Your task to perform on an android device: Search for desk lamps on article.com Image 0: 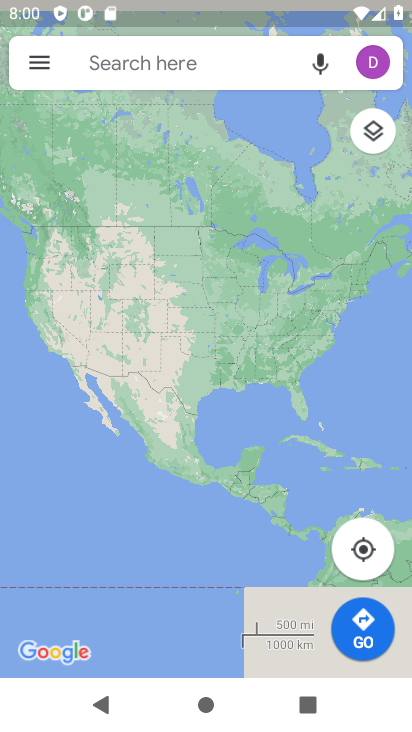
Step 0: press home button
Your task to perform on an android device: Search for desk lamps on article.com Image 1: 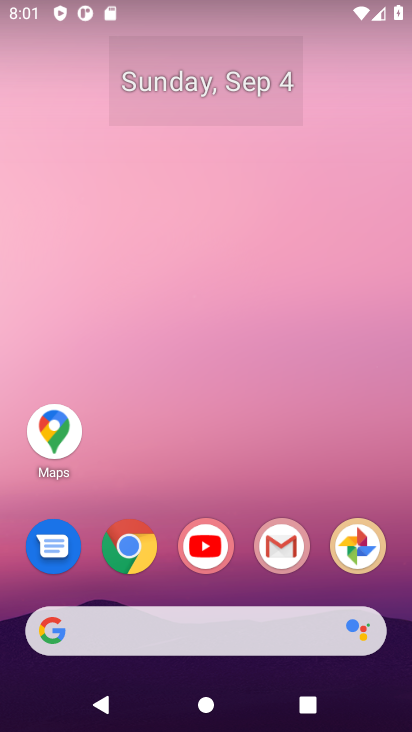
Step 1: click (126, 551)
Your task to perform on an android device: Search for desk lamps on article.com Image 2: 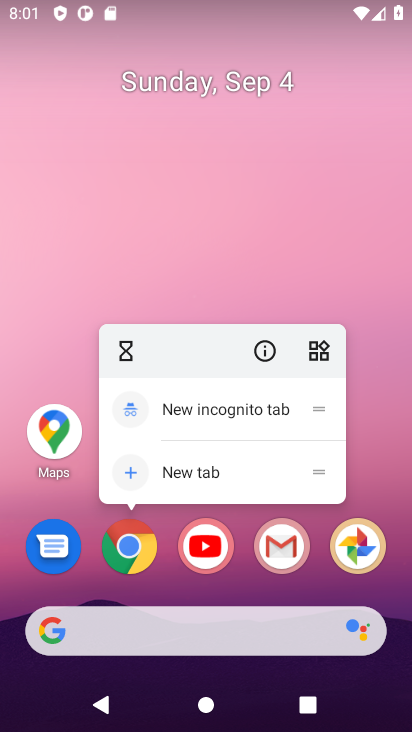
Step 2: click (126, 551)
Your task to perform on an android device: Search for desk lamps on article.com Image 3: 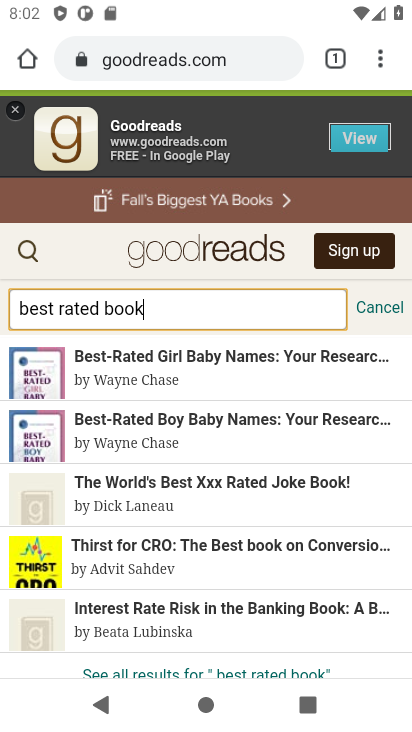
Step 3: click (27, 255)
Your task to perform on an android device: Search for desk lamps on article.com Image 4: 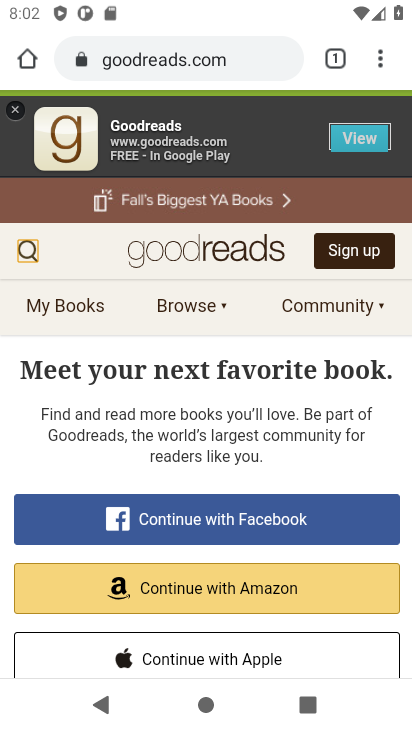
Step 4: click (33, 255)
Your task to perform on an android device: Search for desk lamps on article.com Image 5: 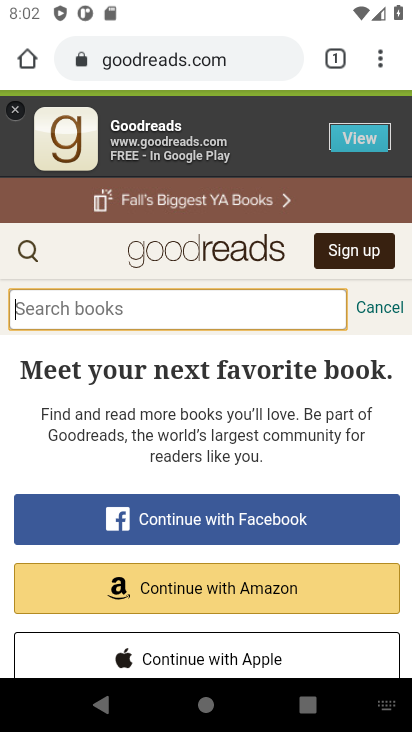
Step 5: click (79, 302)
Your task to perform on an android device: Search for desk lamps on article.com Image 6: 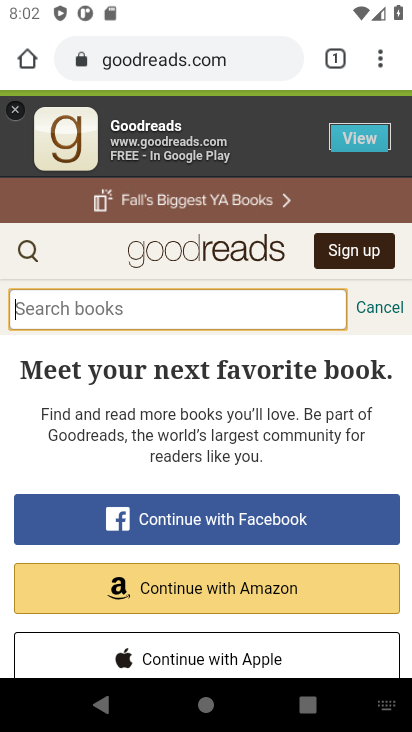
Step 6: click (160, 46)
Your task to perform on an android device: Search for desk lamps on article.com Image 7: 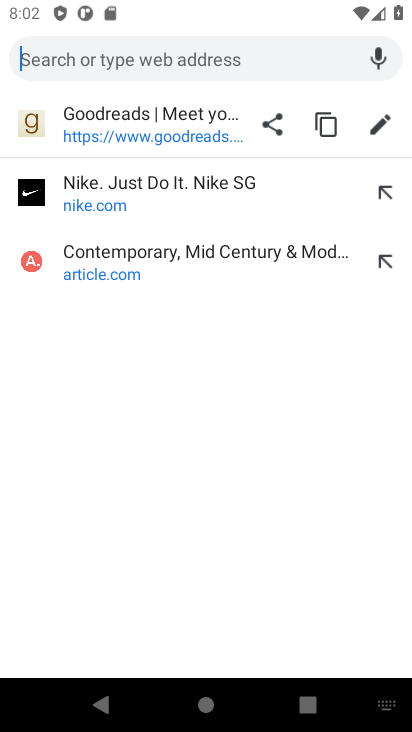
Step 7: type "article.com"
Your task to perform on an android device: Search for desk lamps on article.com Image 8: 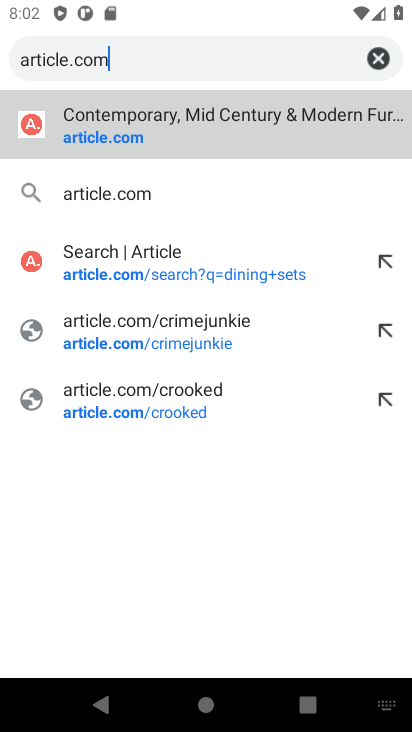
Step 8: click (118, 191)
Your task to perform on an android device: Search for desk lamps on article.com Image 9: 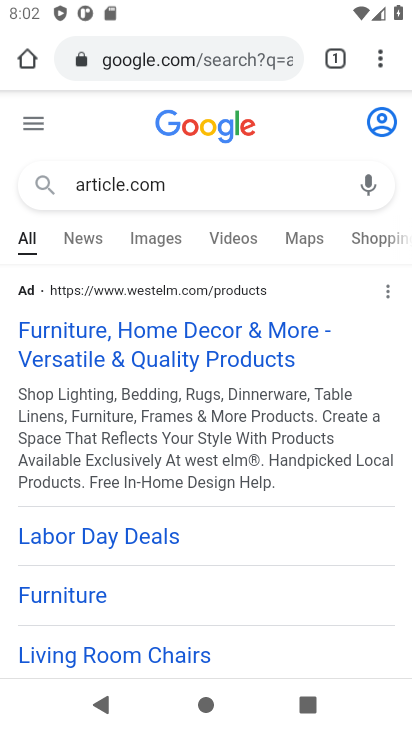
Step 9: drag from (197, 470) to (176, 153)
Your task to perform on an android device: Search for desk lamps on article.com Image 10: 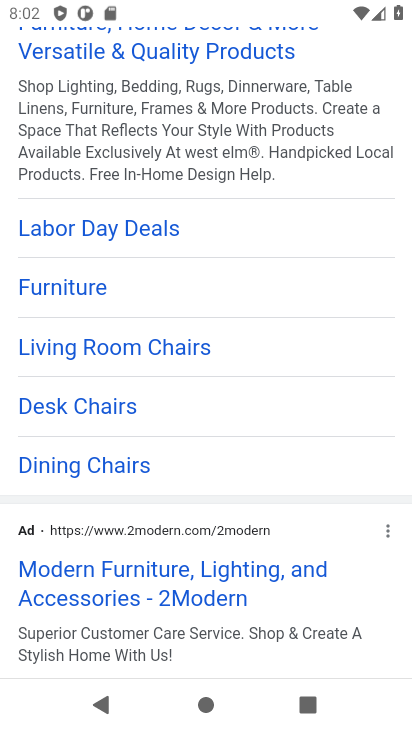
Step 10: drag from (222, 492) to (197, 122)
Your task to perform on an android device: Search for desk lamps on article.com Image 11: 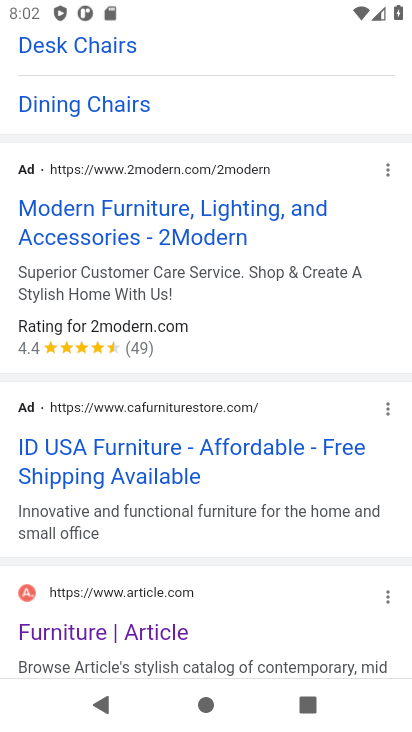
Step 11: drag from (208, 524) to (172, 198)
Your task to perform on an android device: Search for desk lamps on article.com Image 12: 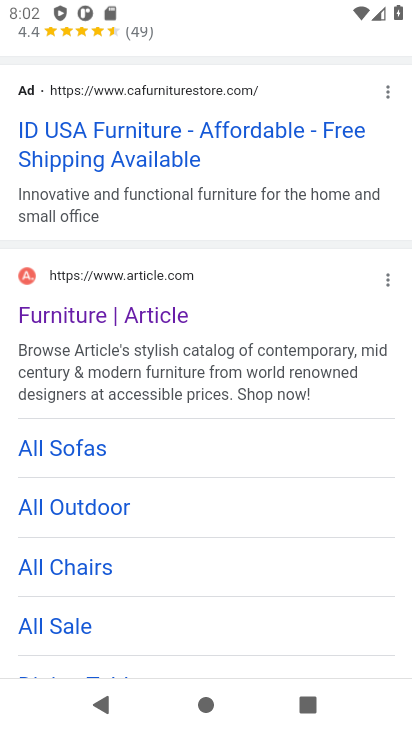
Step 12: click (108, 315)
Your task to perform on an android device: Search for desk lamps on article.com Image 13: 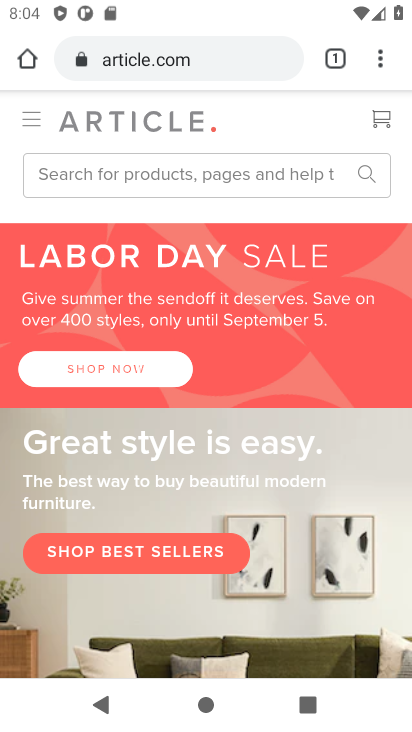
Step 13: click (123, 173)
Your task to perform on an android device: Search for desk lamps on article.com Image 14: 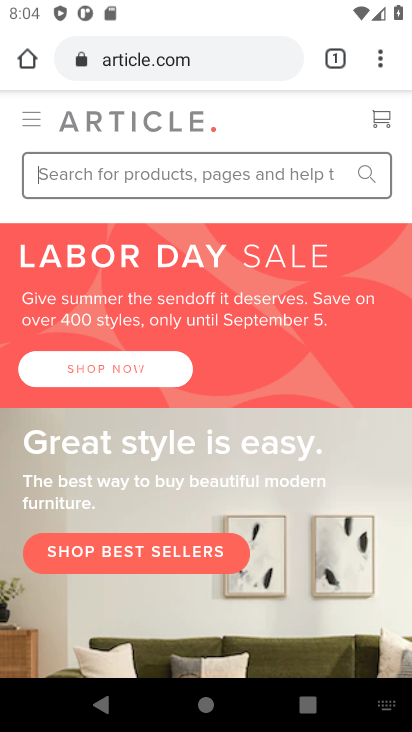
Step 14: type "desk lamps "
Your task to perform on an android device: Search for desk lamps on article.com Image 15: 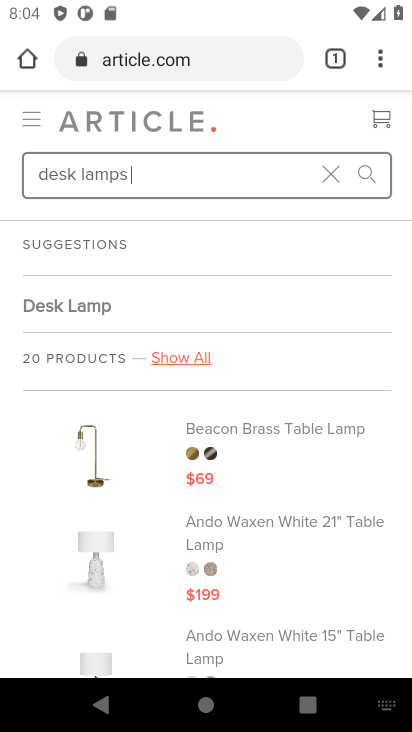
Step 15: task complete